Your task to perform on an android device: refresh tabs in the chrome app Image 0: 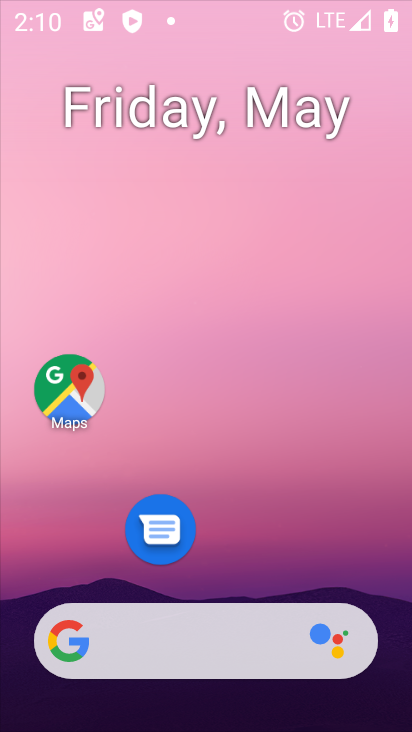
Step 0: click (279, 181)
Your task to perform on an android device: refresh tabs in the chrome app Image 1: 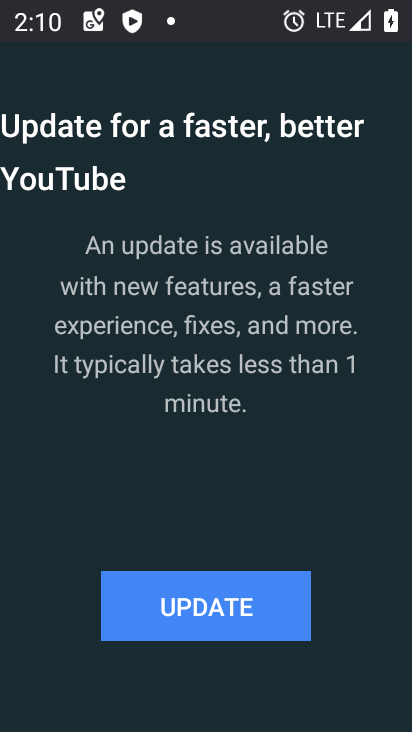
Step 1: press home button
Your task to perform on an android device: refresh tabs in the chrome app Image 2: 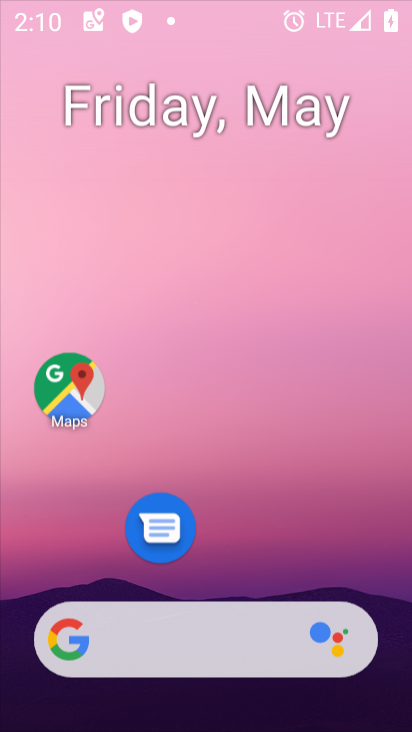
Step 2: drag from (227, 658) to (341, 155)
Your task to perform on an android device: refresh tabs in the chrome app Image 3: 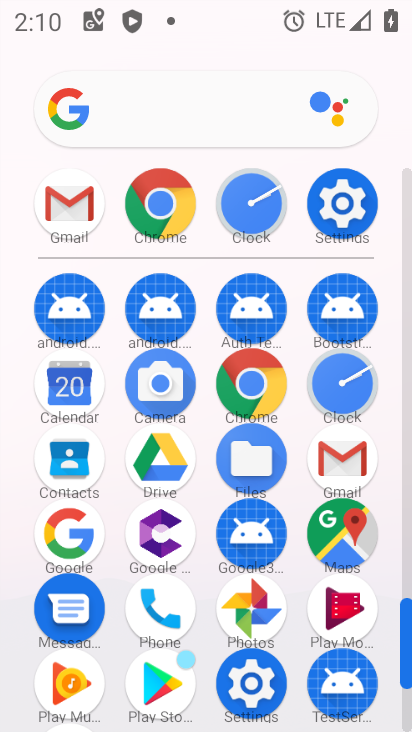
Step 3: click (251, 374)
Your task to perform on an android device: refresh tabs in the chrome app Image 4: 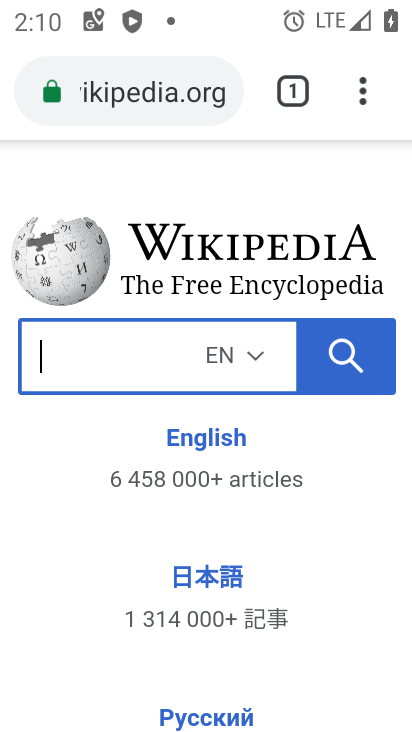
Step 4: drag from (287, 605) to (283, 248)
Your task to perform on an android device: refresh tabs in the chrome app Image 5: 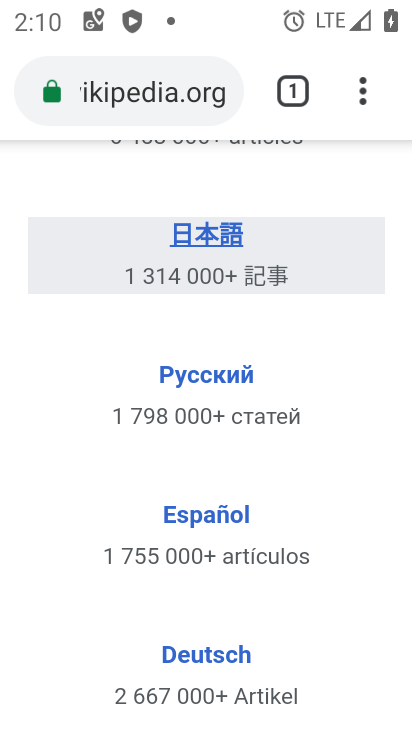
Step 5: drag from (277, 710) to (304, 386)
Your task to perform on an android device: refresh tabs in the chrome app Image 6: 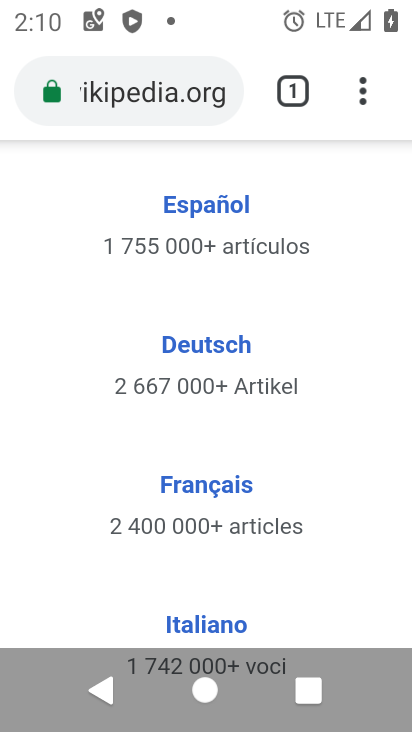
Step 6: drag from (289, 214) to (332, 706)
Your task to perform on an android device: refresh tabs in the chrome app Image 7: 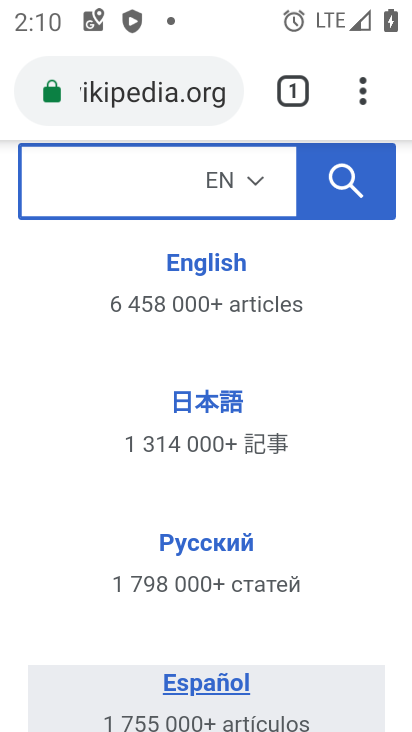
Step 7: drag from (316, 62) to (355, 387)
Your task to perform on an android device: refresh tabs in the chrome app Image 8: 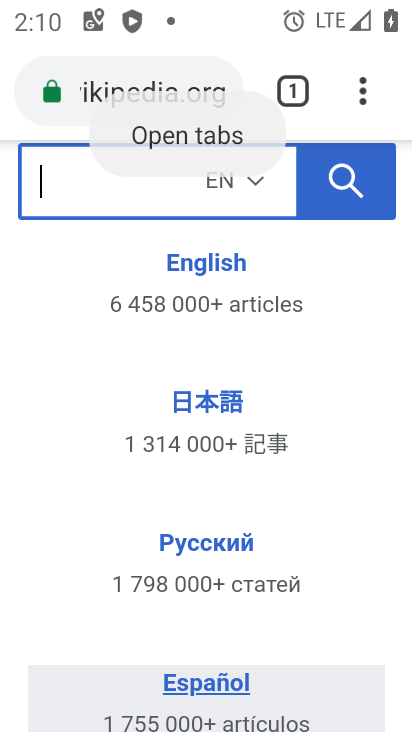
Step 8: drag from (260, 288) to (285, 672)
Your task to perform on an android device: refresh tabs in the chrome app Image 9: 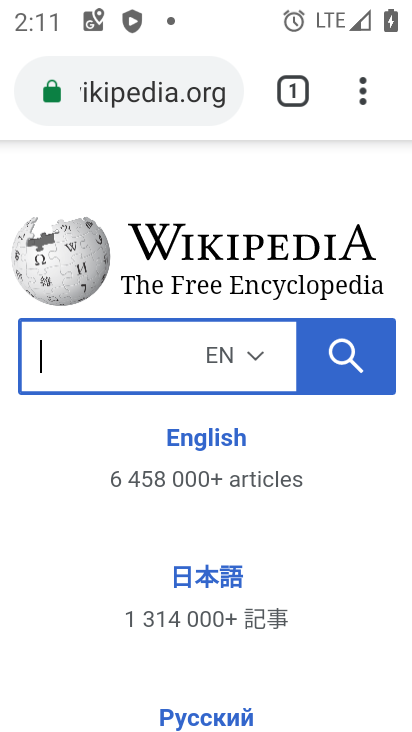
Step 9: click (359, 80)
Your task to perform on an android device: refresh tabs in the chrome app Image 10: 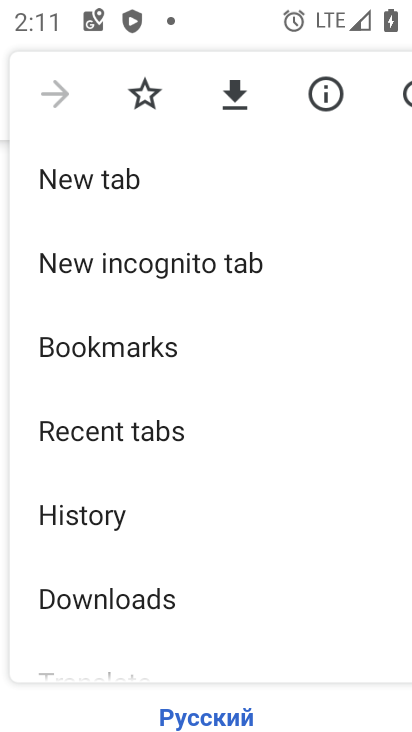
Step 10: drag from (153, 609) to (230, 185)
Your task to perform on an android device: refresh tabs in the chrome app Image 11: 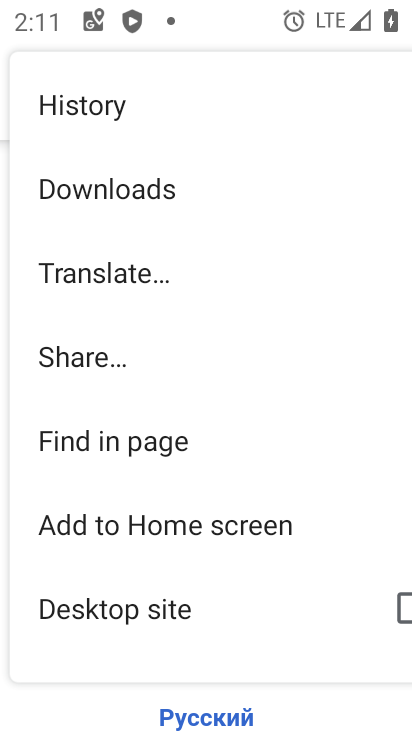
Step 11: drag from (157, 628) to (249, 169)
Your task to perform on an android device: refresh tabs in the chrome app Image 12: 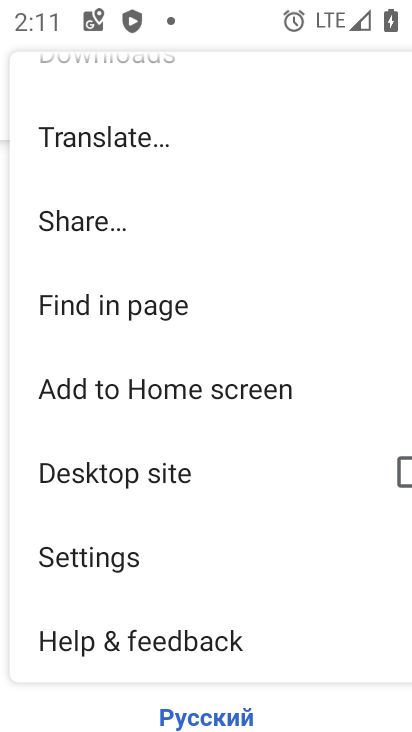
Step 12: drag from (218, 170) to (241, 678)
Your task to perform on an android device: refresh tabs in the chrome app Image 13: 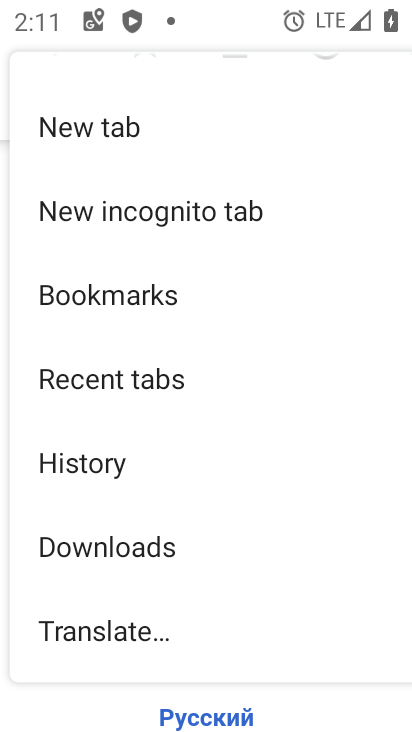
Step 13: drag from (229, 206) to (236, 538)
Your task to perform on an android device: refresh tabs in the chrome app Image 14: 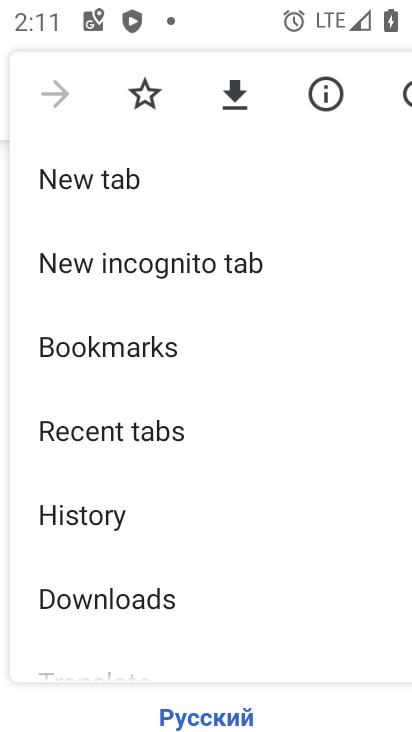
Step 14: click (402, 101)
Your task to perform on an android device: refresh tabs in the chrome app Image 15: 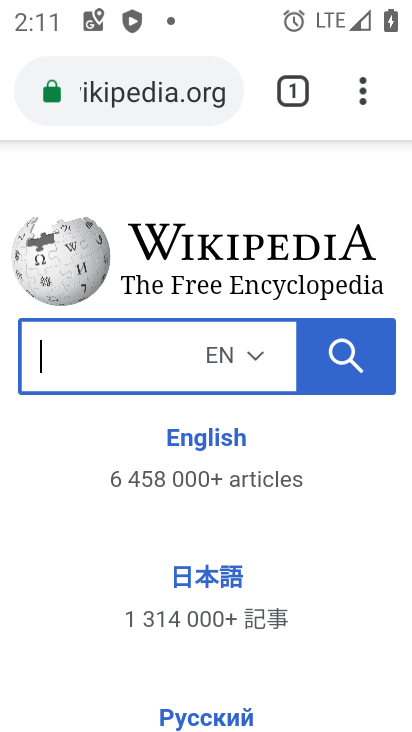
Step 15: task complete